Your task to perform on an android device: Go to Wikipedia Image 0: 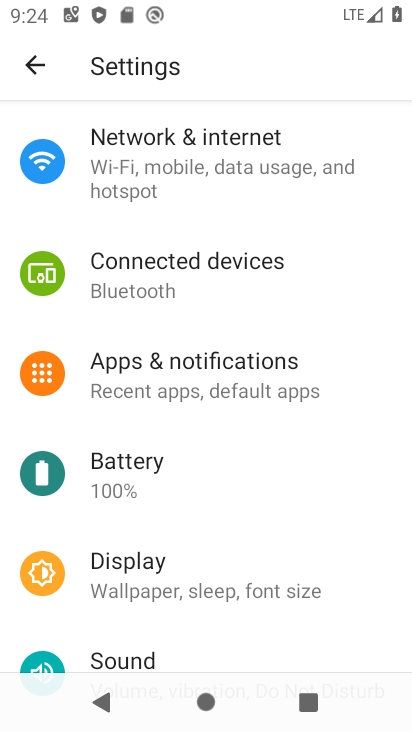
Step 0: press home button
Your task to perform on an android device: Go to Wikipedia Image 1: 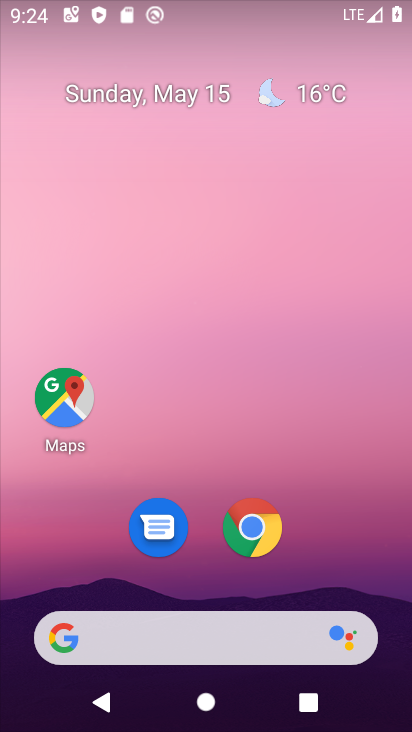
Step 1: click (355, 600)
Your task to perform on an android device: Go to Wikipedia Image 2: 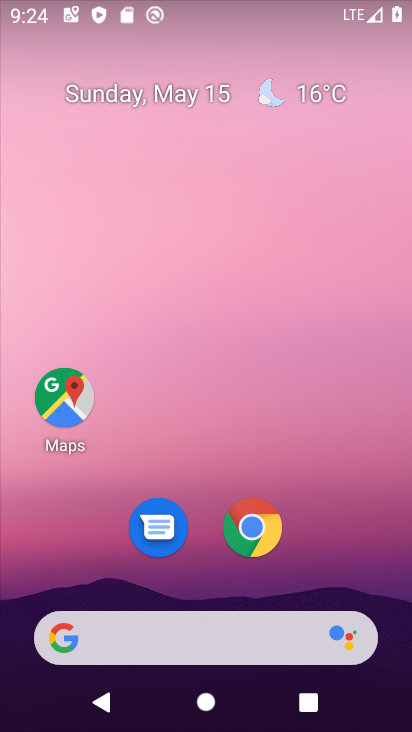
Step 2: click (254, 533)
Your task to perform on an android device: Go to Wikipedia Image 3: 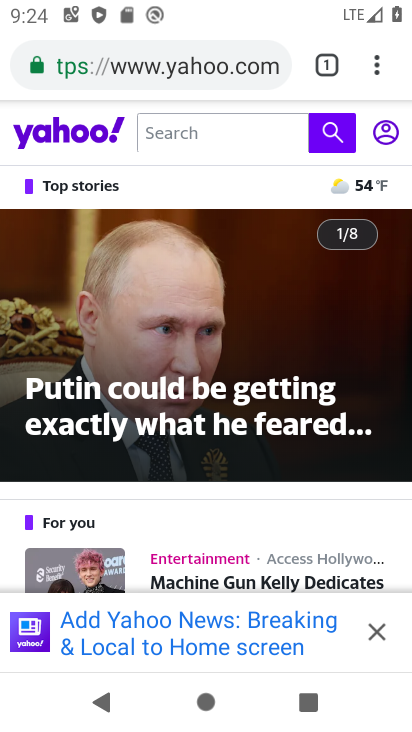
Step 3: click (128, 71)
Your task to perform on an android device: Go to Wikipedia Image 4: 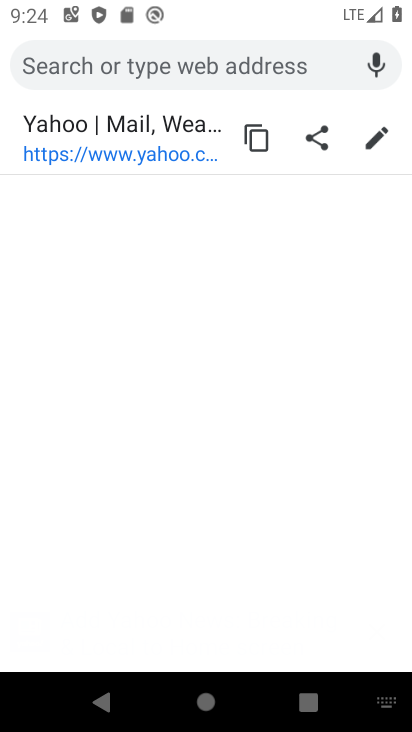
Step 4: type "wikipedia"
Your task to perform on an android device: Go to Wikipedia Image 5: 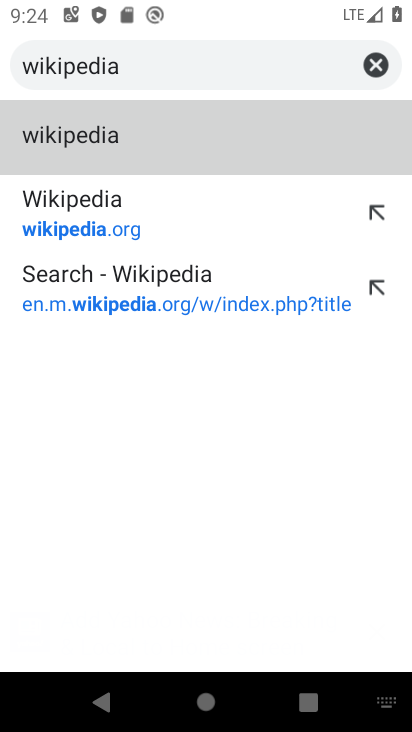
Step 5: click (80, 146)
Your task to perform on an android device: Go to Wikipedia Image 6: 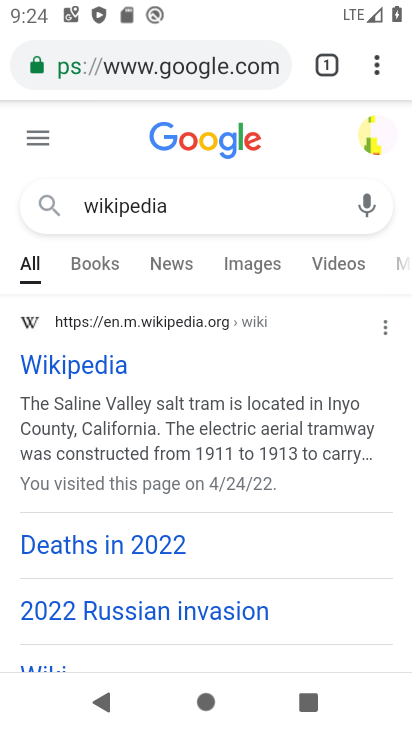
Step 6: click (58, 386)
Your task to perform on an android device: Go to Wikipedia Image 7: 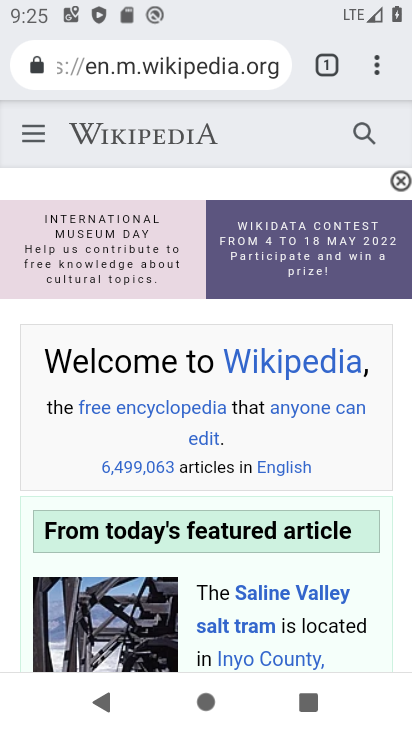
Step 7: task complete